Your task to perform on an android device: all mails in gmail Image 0: 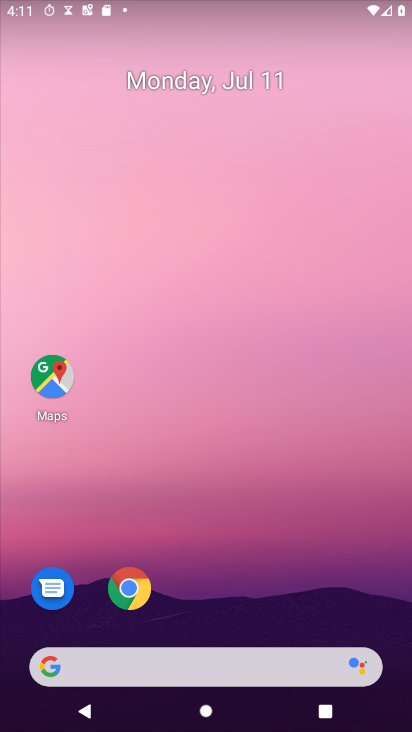
Step 0: drag from (194, 602) to (218, 27)
Your task to perform on an android device: all mails in gmail Image 1: 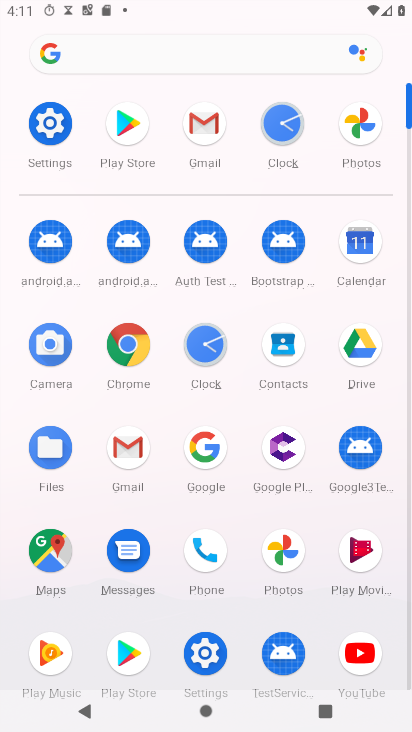
Step 1: click (207, 134)
Your task to perform on an android device: all mails in gmail Image 2: 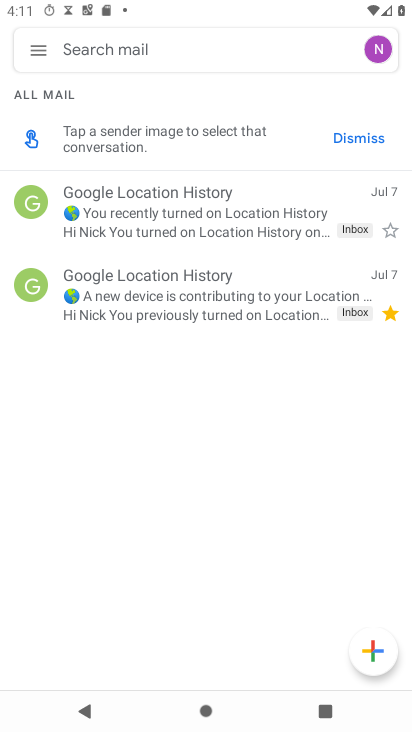
Step 2: click (46, 40)
Your task to perform on an android device: all mails in gmail Image 3: 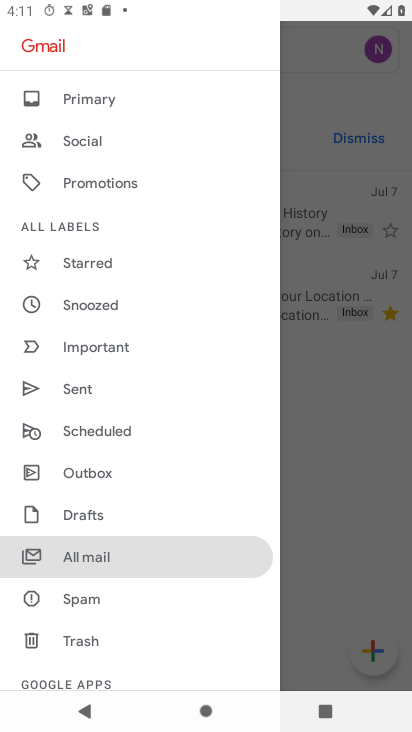
Step 3: click (131, 552)
Your task to perform on an android device: all mails in gmail Image 4: 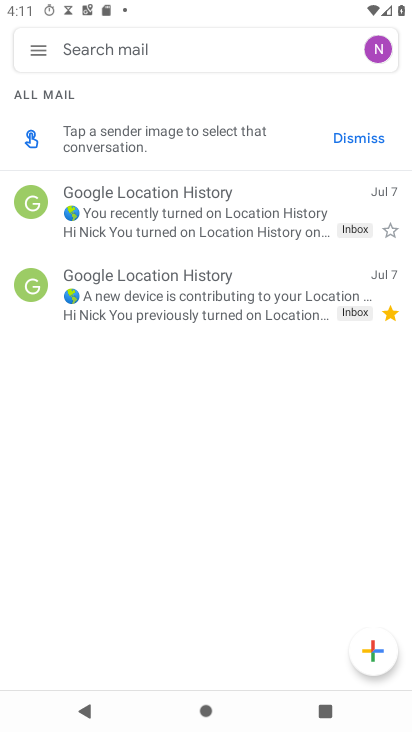
Step 4: task complete